Your task to perform on an android device: clear history in the chrome app Image 0: 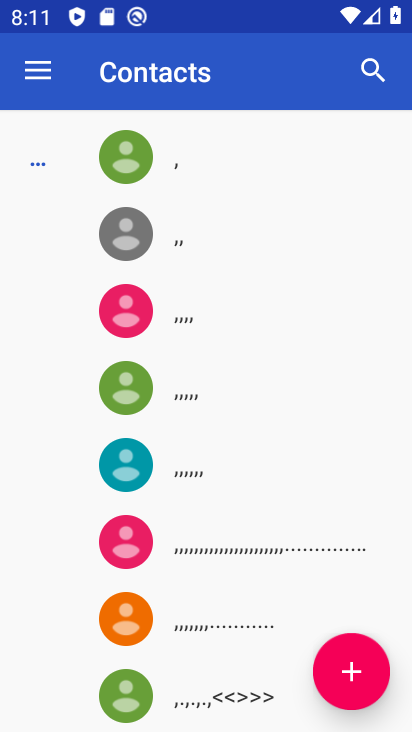
Step 0: press home button
Your task to perform on an android device: clear history in the chrome app Image 1: 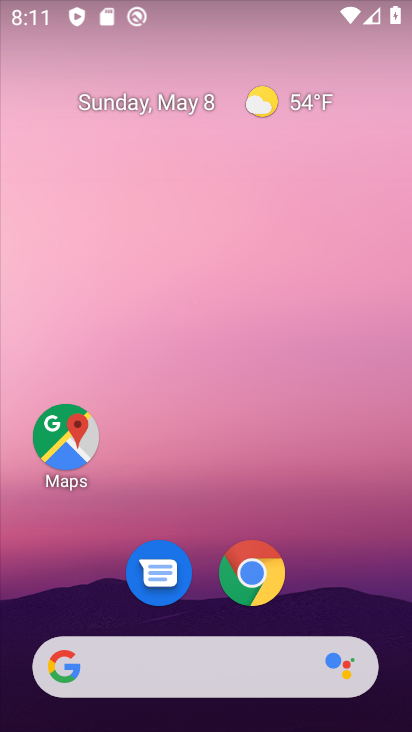
Step 1: click (255, 575)
Your task to perform on an android device: clear history in the chrome app Image 2: 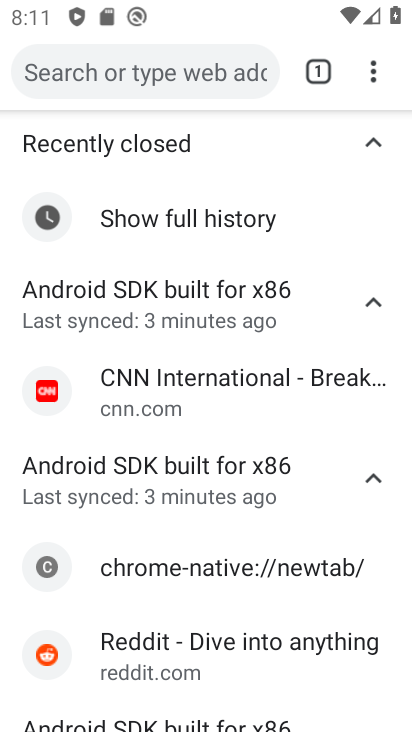
Step 2: drag from (374, 67) to (138, 393)
Your task to perform on an android device: clear history in the chrome app Image 3: 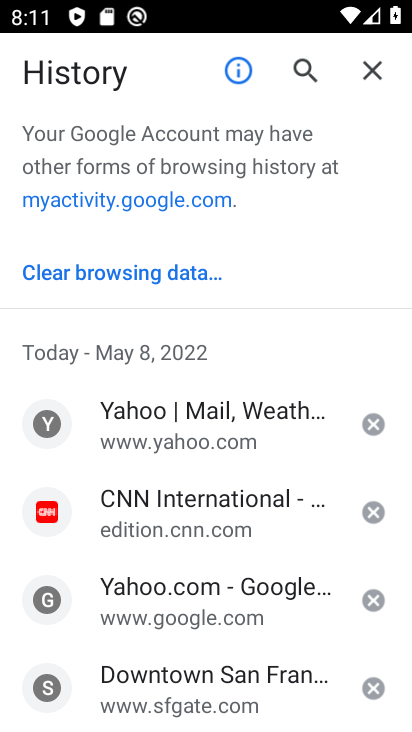
Step 3: click (126, 270)
Your task to perform on an android device: clear history in the chrome app Image 4: 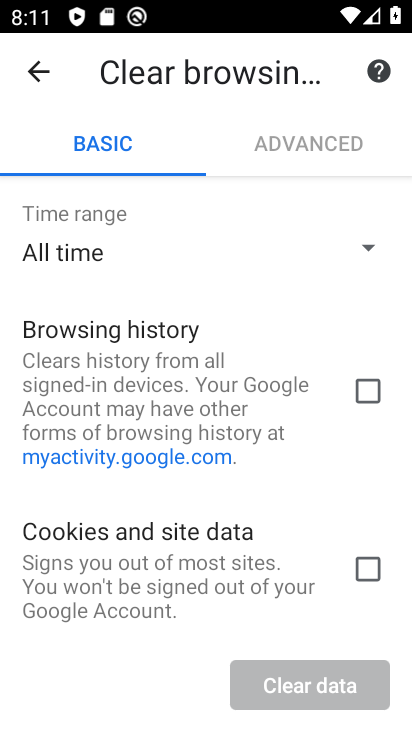
Step 4: click (364, 388)
Your task to perform on an android device: clear history in the chrome app Image 5: 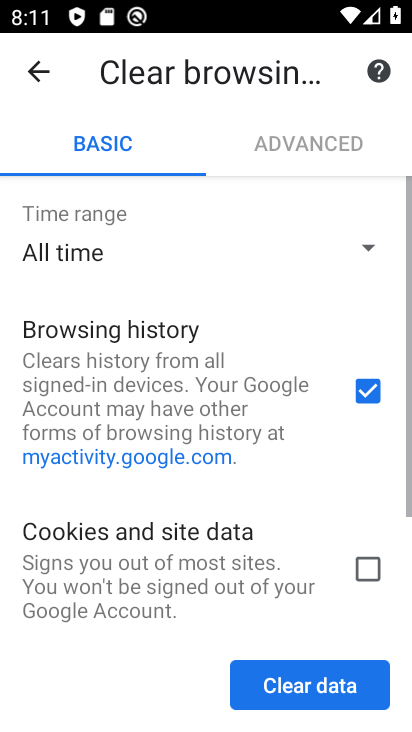
Step 5: click (281, 682)
Your task to perform on an android device: clear history in the chrome app Image 6: 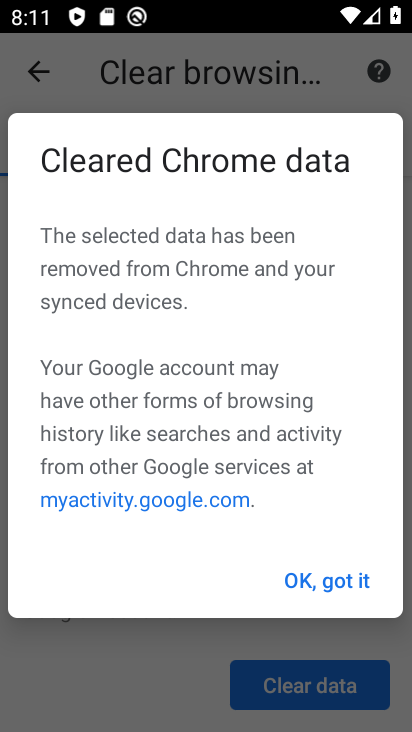
Step 6: click (354, 571)
Your task to perform on an android device: clear history in the chrome app Image 7: 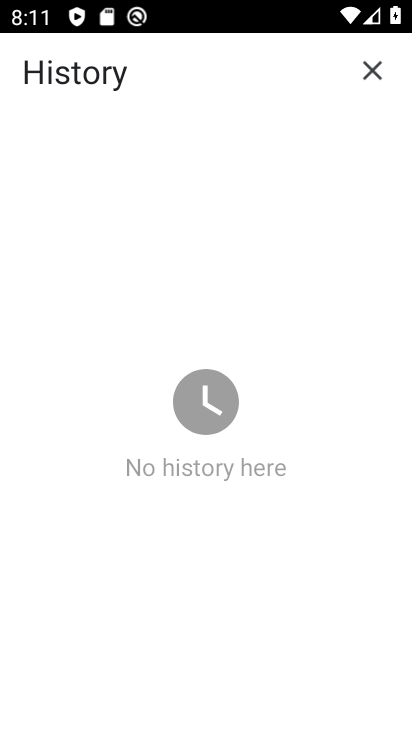
Step 7: task complete